Your task to perform on an android device: Open calendar and show me the second week of next month Image 0: 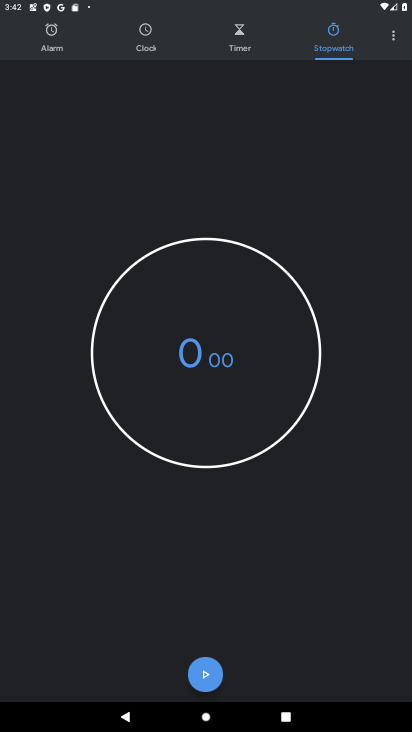
Step 0: press home button
Your task to perform on an android device: Open calendar and show me the second week of next month Image 1: 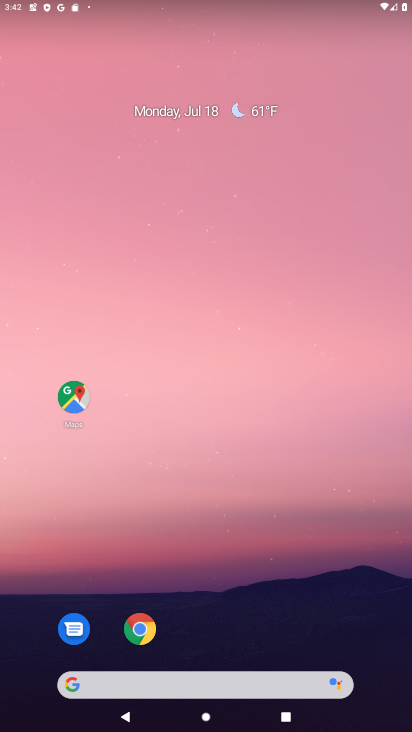
Step 1: drag from (238, 687) to (217, 391)
Your task to perform on an android device: Open calendar and show me the second week of next month Image 2: 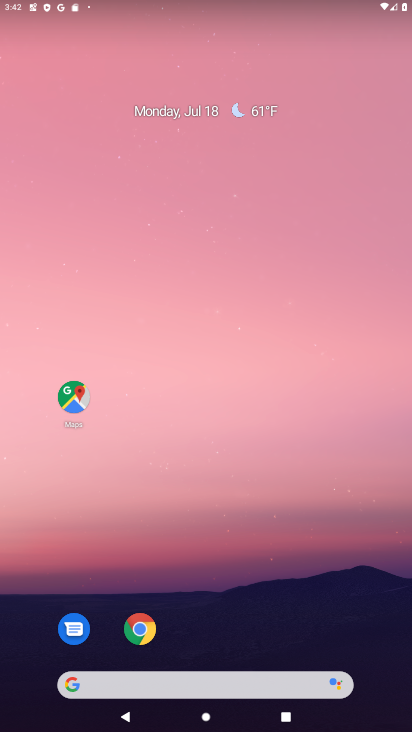
Step 2: drag from (200, 686) to (242, 108)
Your task to perform on an android device: Open calendar and show me the second week of next month Image 3: 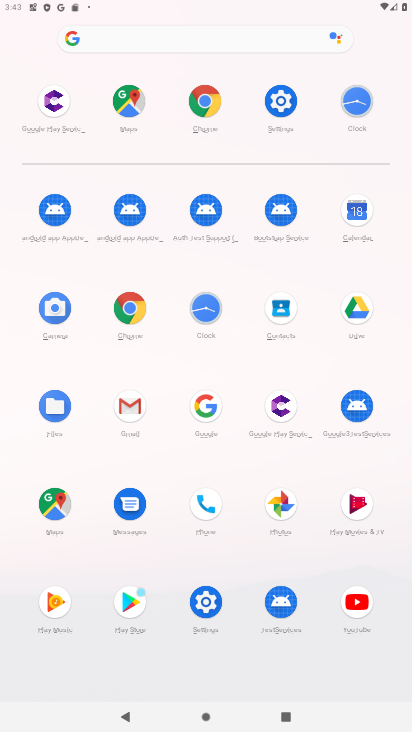
Step 3: click (352, 213)
Your task to perform on an android device: Open calendar and show me the second week of next month Image 4: 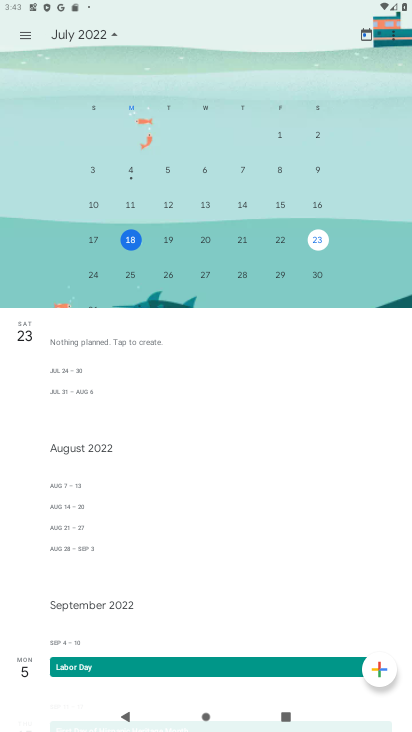
Step 4: drag from (346, 207) to (1, 171)
Your task to perform on an android device: Open calendar and show me the second week of next month Image 5: 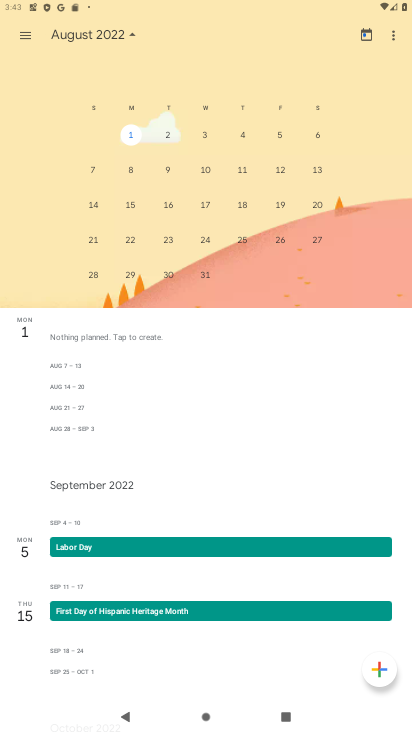
Step 5: click (94, 167)
Your task to perform on an android device: Open calendar and show me the second week of next month Image 6: 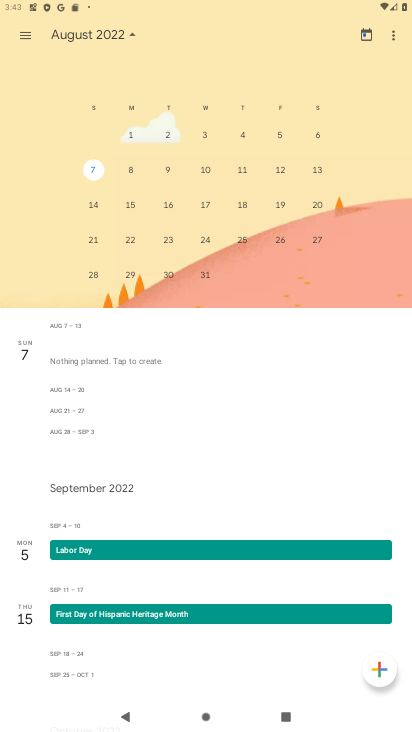
Step 6: task complete